Your task to perform on an android device: Open settings Image 0: 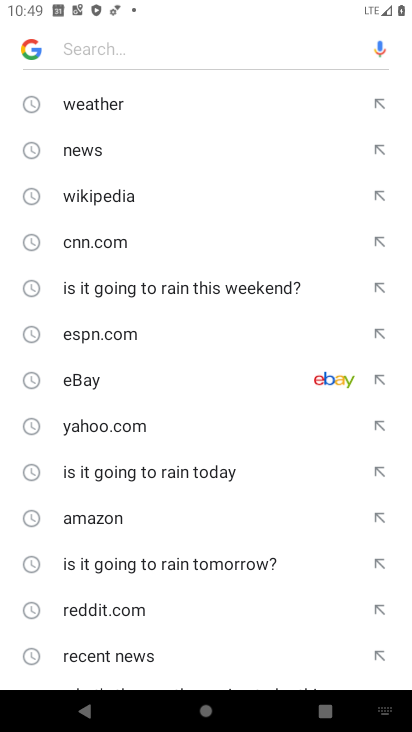
Step 0: press home button
Your task to perform on an android device: Open settings Image 1: 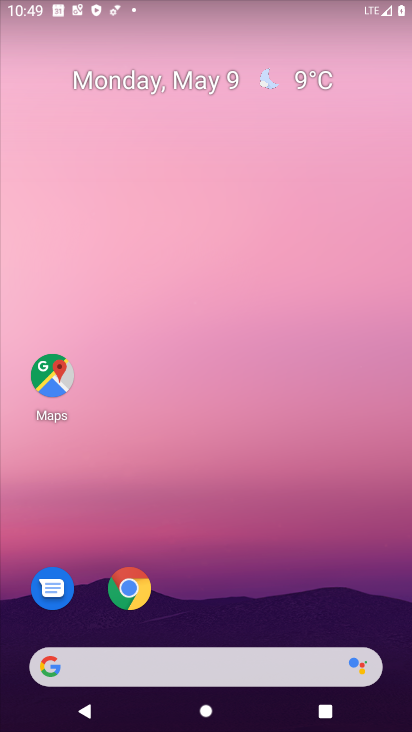
Step 1: drag from (137, 672) to (252, 62)
Your task to perform on an android device: Open settings Image 2: 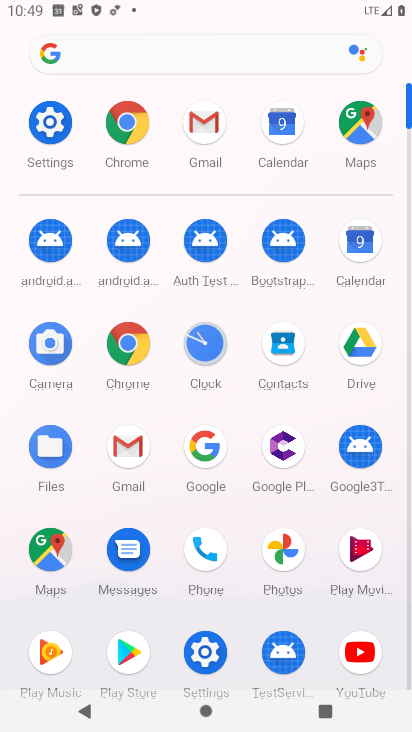
Step 2: click (49, 133)
Your task to perform on an android device: Open settings Image 3: 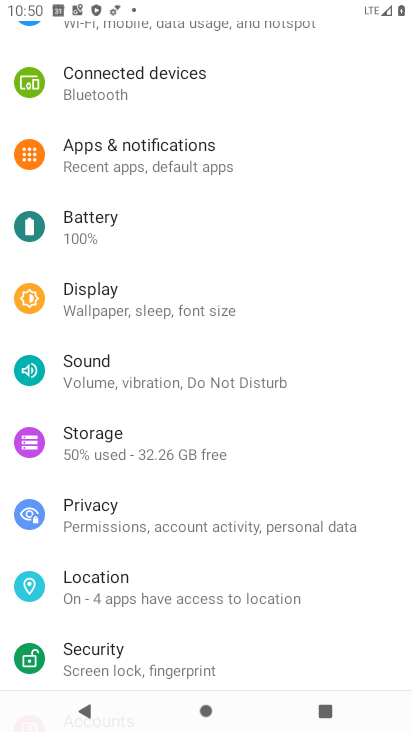
Step 3: task complete